Your task to perform on an android device: Check the news Image 0: 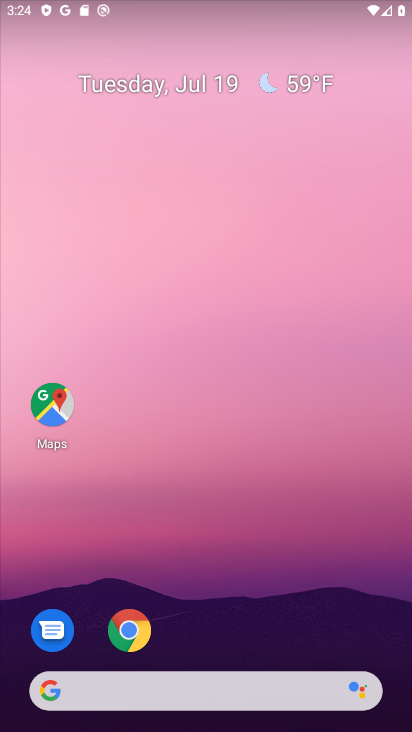
Step 0: drag from (20, 227) to (410, 216)
Your task to perform on an android device: Check the news Image 1: 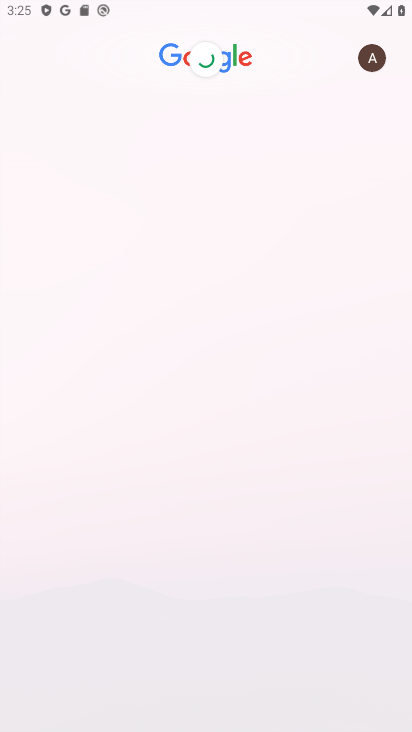
Step 1: task complete